Your task to perform on an android device: Go to notification settings Image 0: 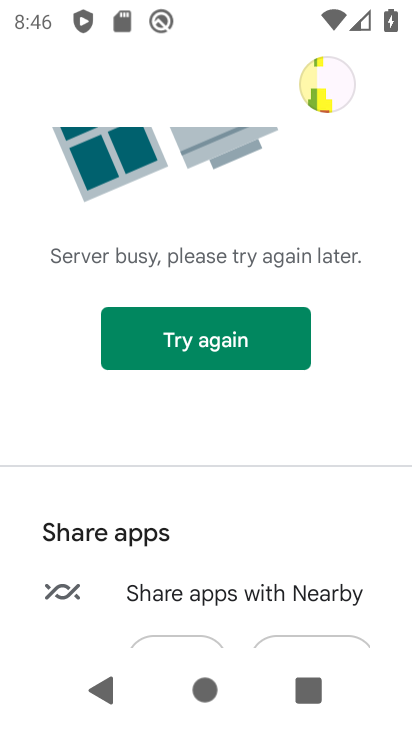
Step 0: press home button
Your task to perform on an android device: Go to notification settings Image 1: 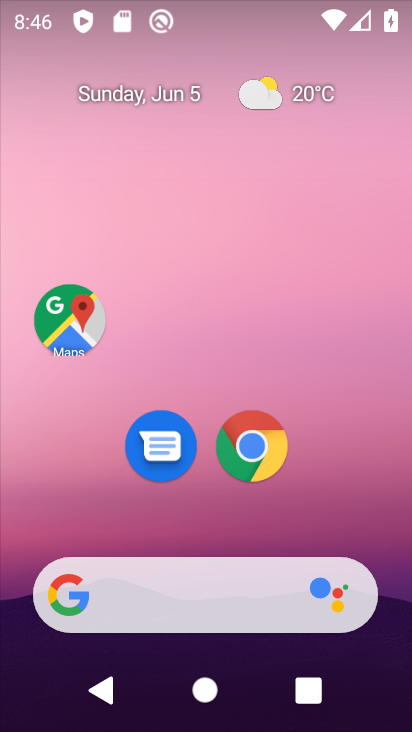
Step 1: drag from (201, 539) to (186, 122)
Your task to perform on an android device: Go to notification settings Image 2: 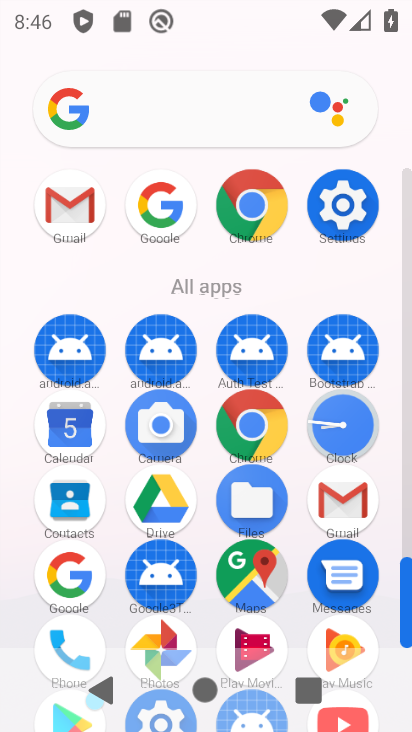
Step 2: click (334, 186)
Your task to perform on an android device: Go to notification settings Image 3: 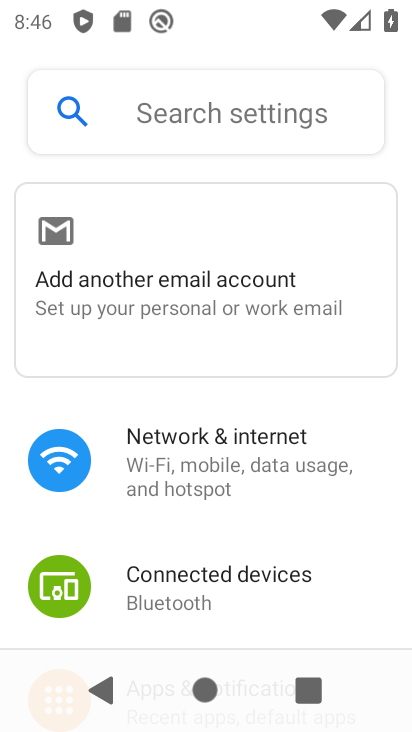
Step 3: click (207, 473)
Your task to perform on an android device: Go to notification settings Image 4: 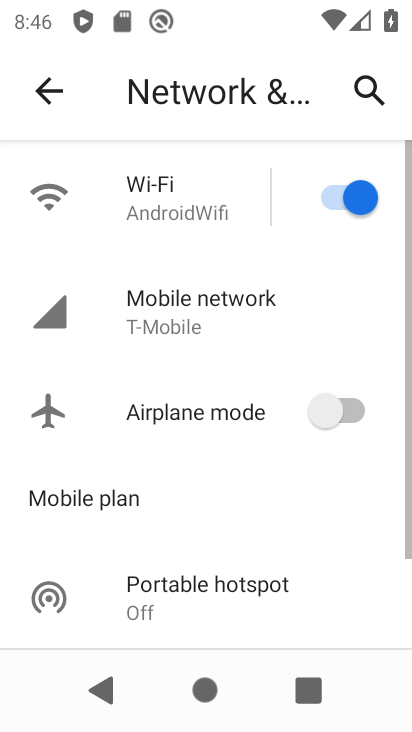
Step 4: click (33, 80)
Your task to perform on an android device: Go to notification settings Image 5: 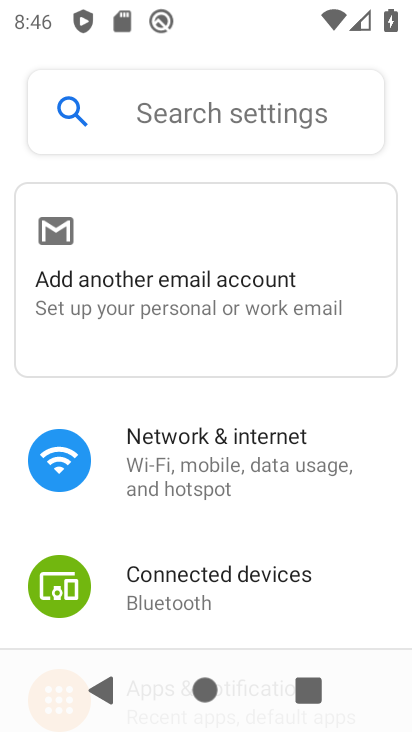
Step 5: drag from (208, 555) to (232, 248)
Your task to perform on an android device: Go to notification settings Image 6: 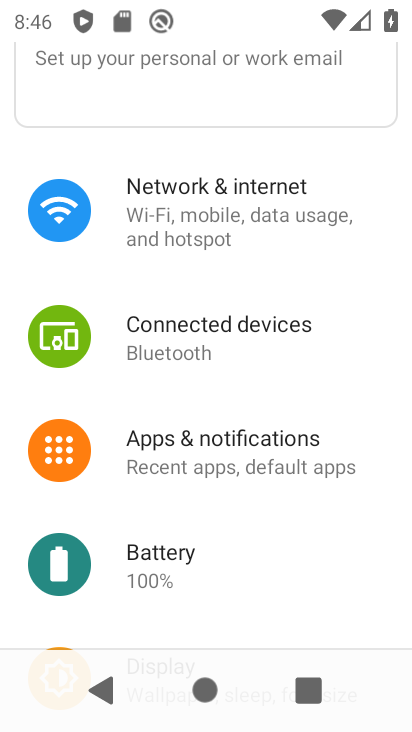
Step 6: click (248, 433)
Your task to perform on an android device: Go to notification settings Image 7: 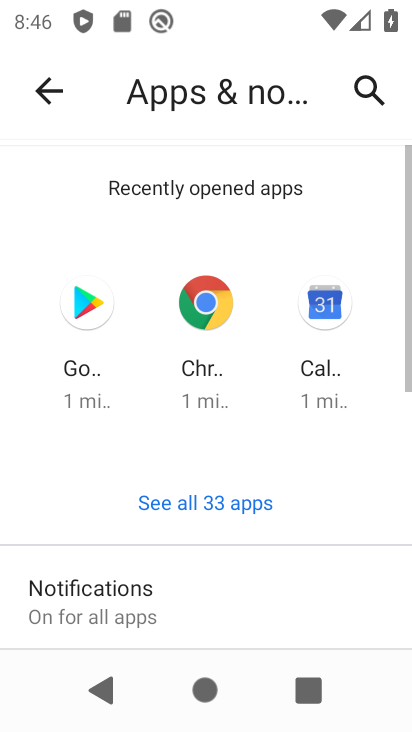
Step 7: click (130, 603)
Your task to perform on an android device: Go to notification settings Image 8: 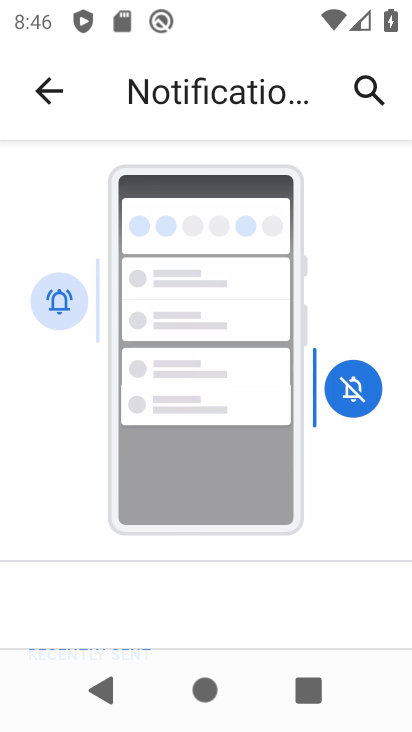
Step 8: task complete